Your task to perform on an android device: Search for pizza restaurants on Maps Image 0: 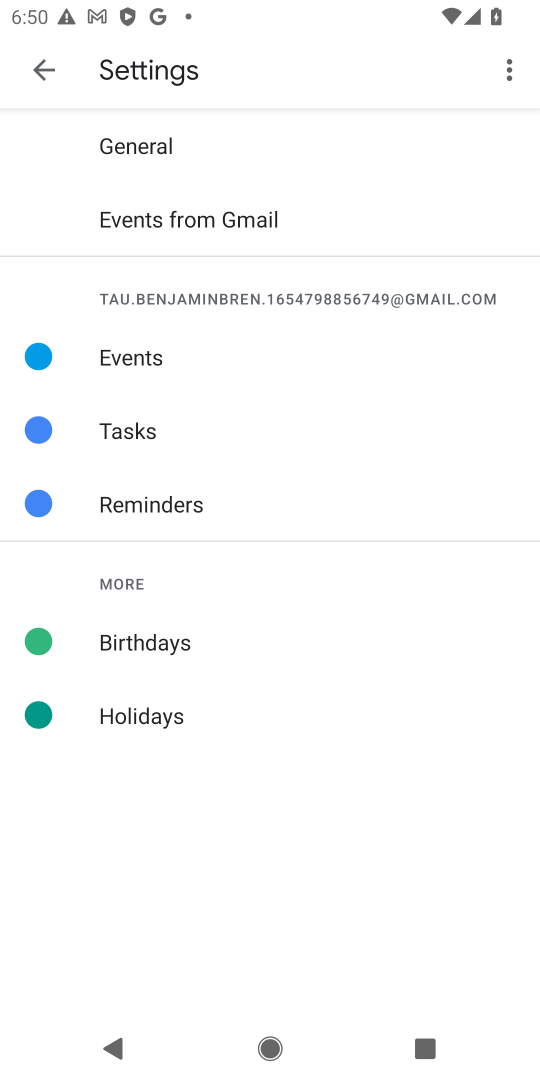
Step 0: press home button
Your task to perform on an android device: Search for pizza restaurants on Maps Image 1: 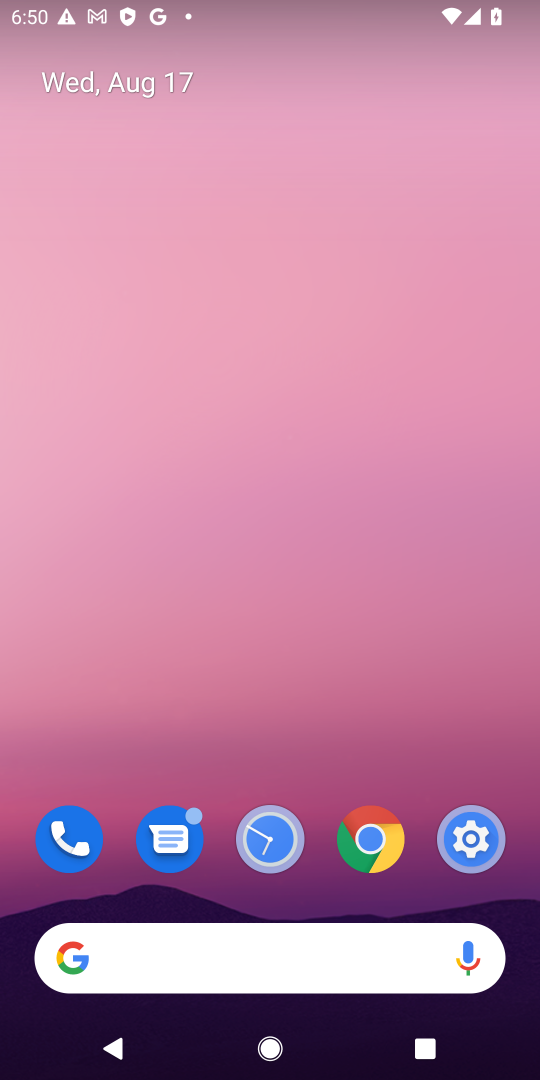
Step 1: drag from (276, 911) to (273, 6)
Your task to perform on an android device: Search for pizza restaurants on Maps Image 2: 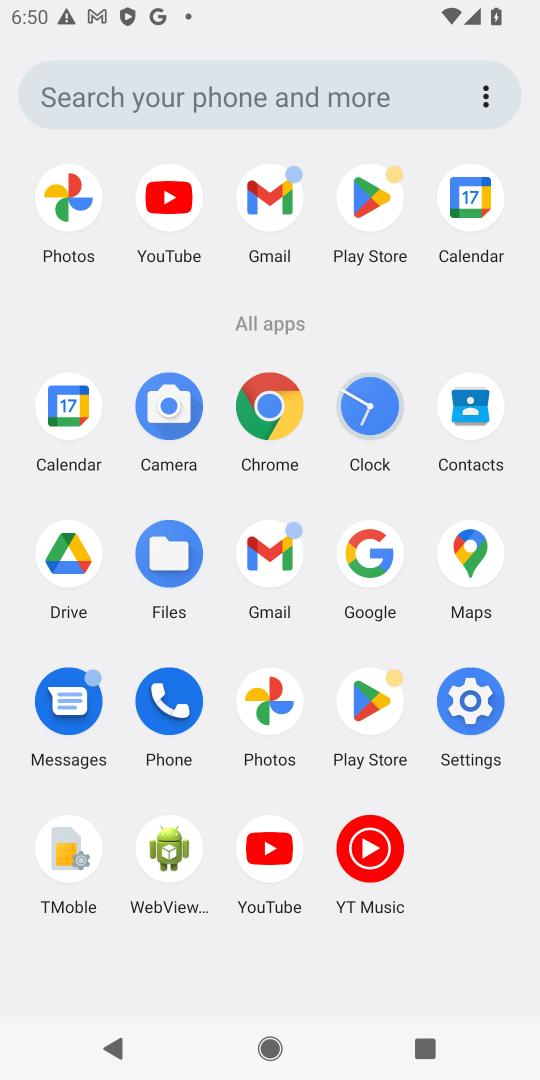
Step 2: click (474, 540)
Your task to perform on an android device: Search for pizza restaurants on Maps Image 3: 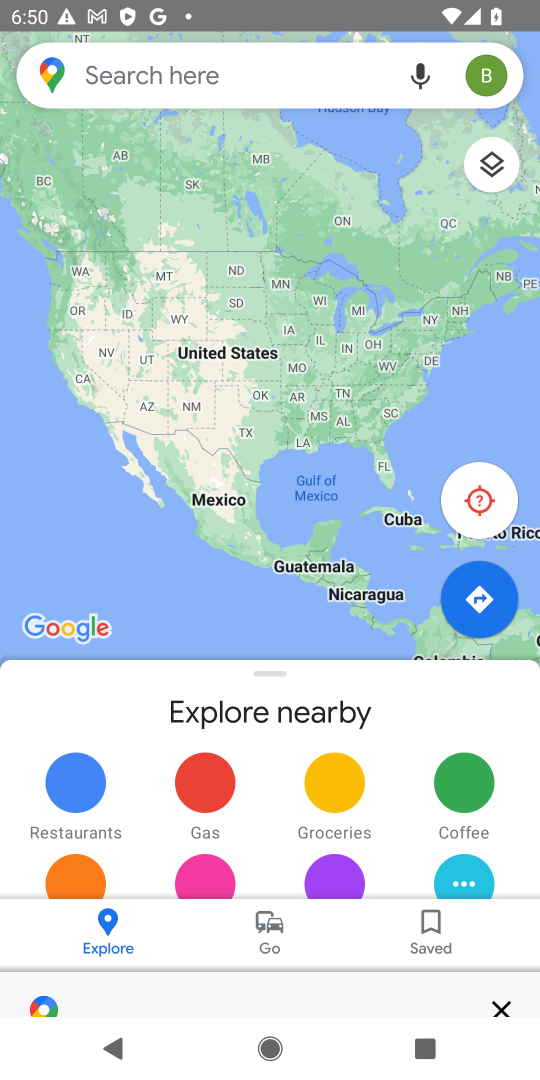
Step 3: click (524, 540)
Your task to perform on an android device: Search for pizza restaurants on Maps Image 4: 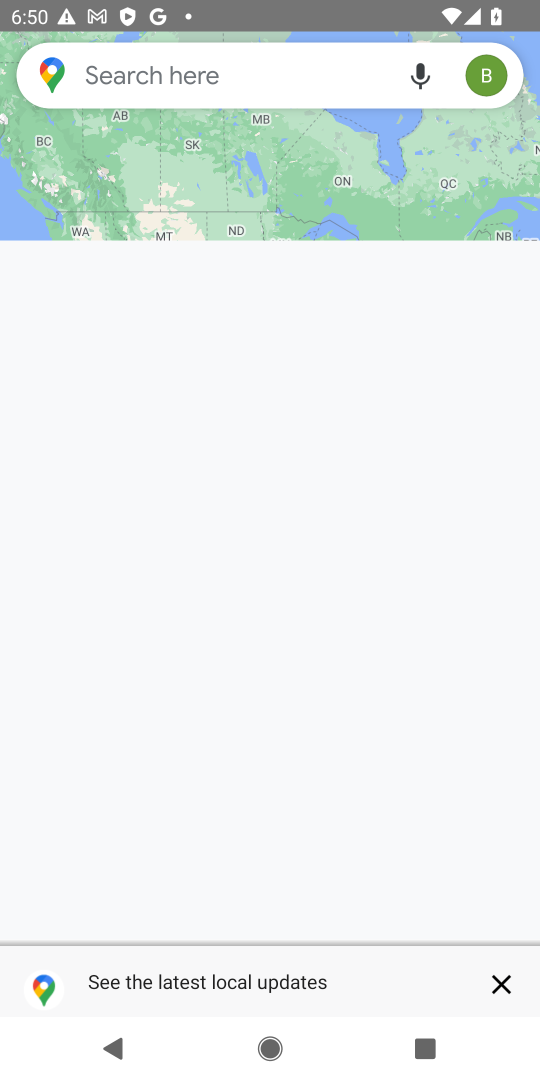
Step 4: click (277, 86)
Your task to perform on an android device: Search for pizza restaurants on Maps Image 5: 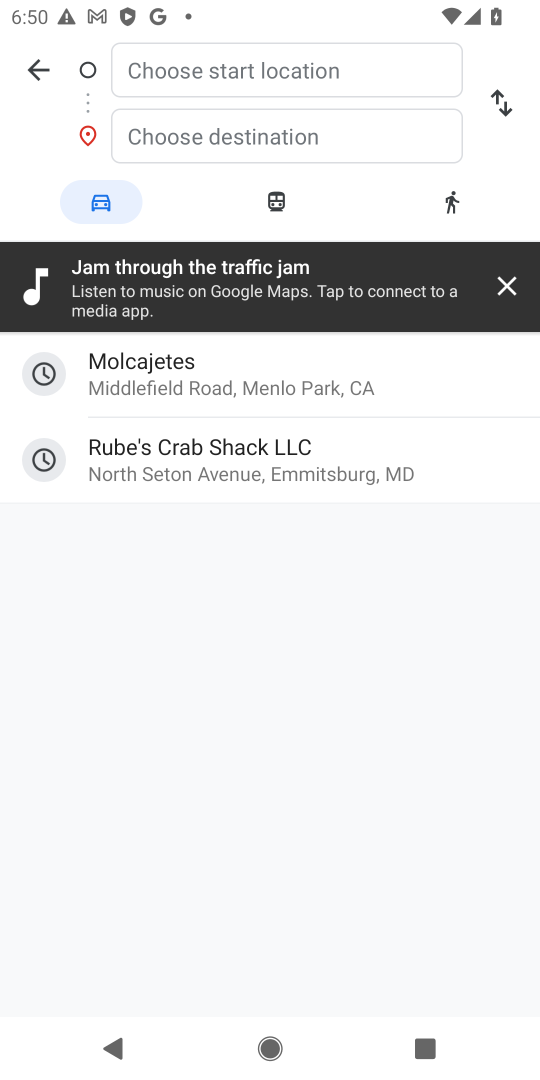
Step 5: click (45, 65)
Your task to perform on an android device: Search for pizza restaurants on Maps Image 6: 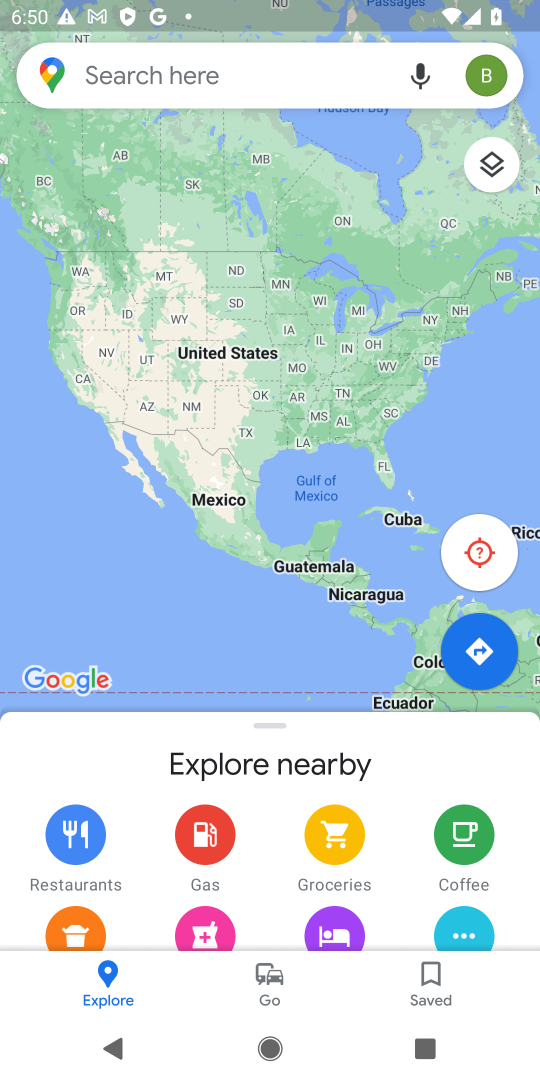
Step 6: click (177, 70)
Your task to perform on an android device: Search for pizza restaurants on Maps Image 7: 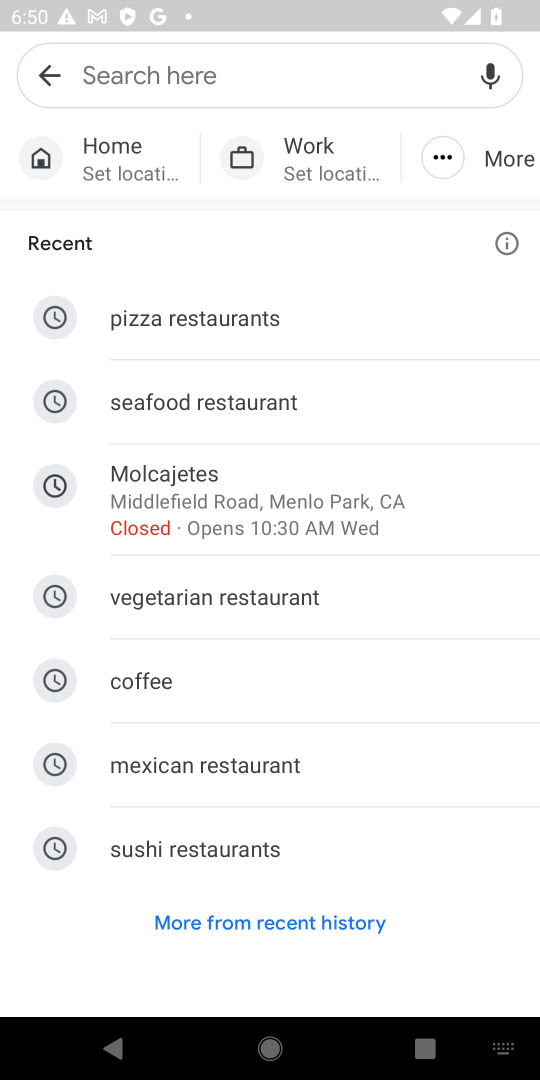
Step 7: click (123, 347)
Your task to perform on an android device: Search for pizza restaurants on Maps Image 8: 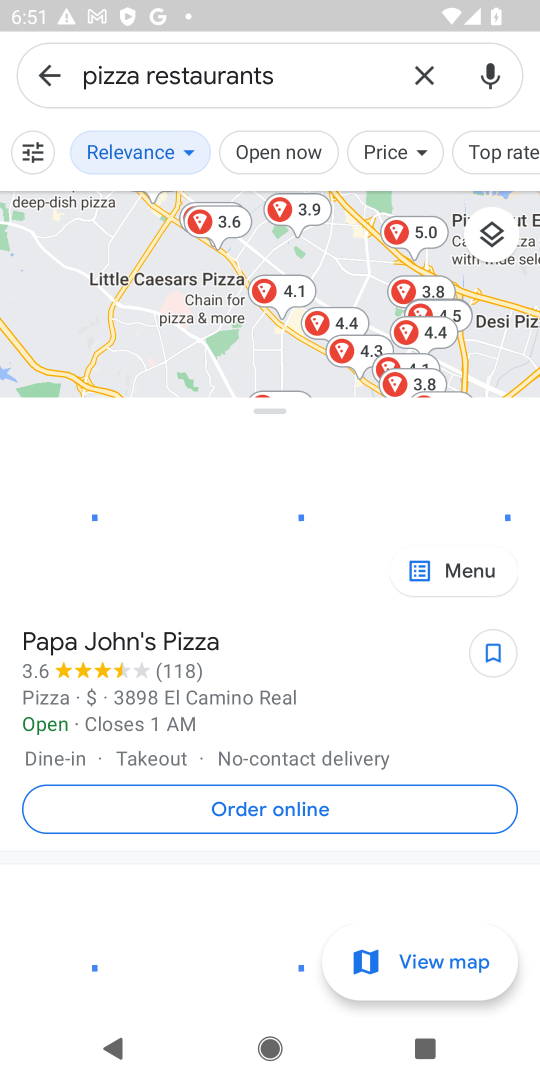
Step 8: task complete